Your task to perform on an android device: toggle sleep mode Image 0: 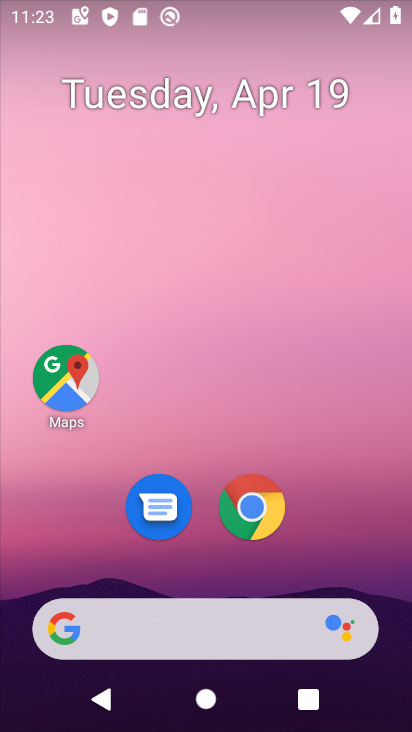
Step 0: drag from (384, 525) to (347, 168)
Your task to perform on an android device: toggle sleep mode Image 1: 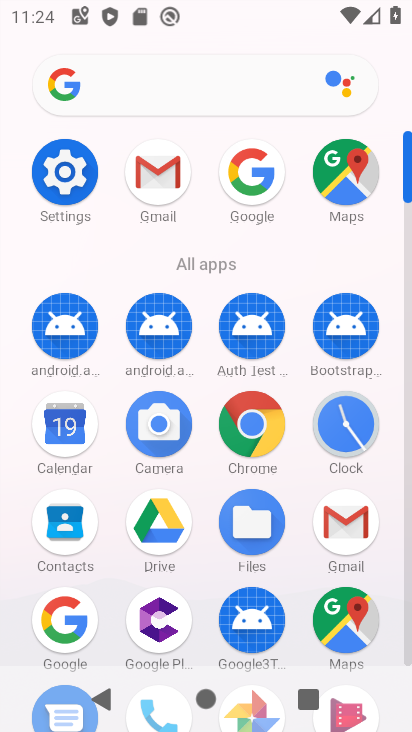
Step 1: click (62, 181)
Your task to perform on an android device: toggle sleep mode Image 2: 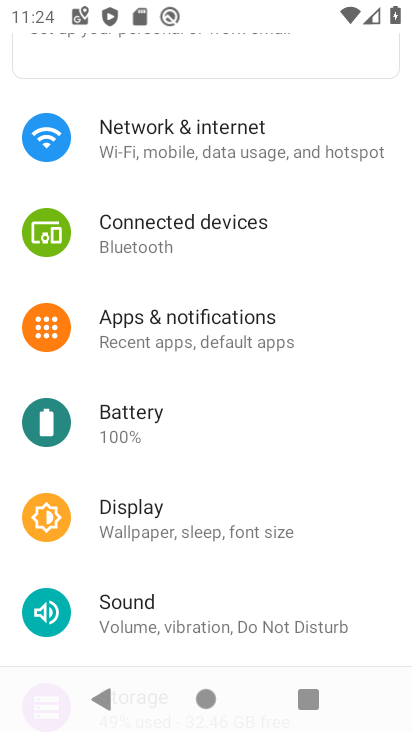
Step 2: drag from (302, 266) to (348, 552)
Your task to perform on an android device: toggle sleep mode Image 3: 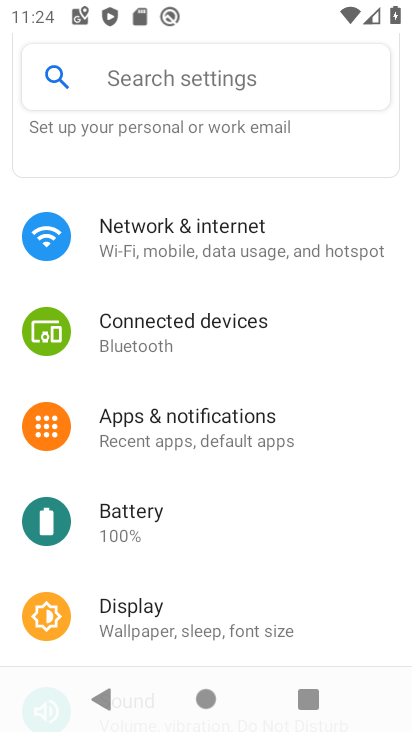
Step 3: click (233, 77)
Your task to perform on an android device: toggle sleep mode Image 4: 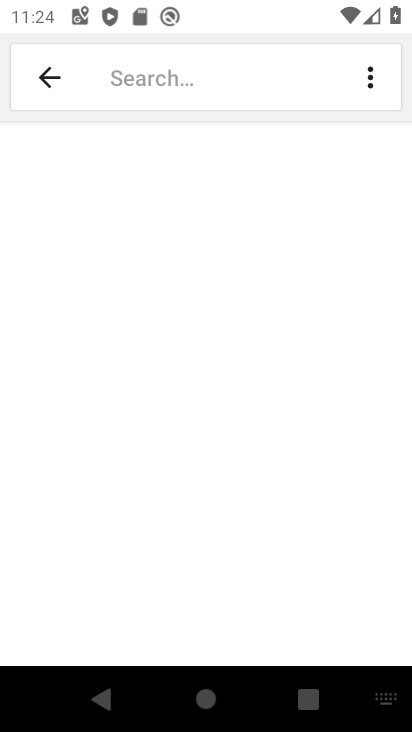
Step 4: type "sleep mode"
Your task to perform on an android device: toggle sleep mode Image 5: 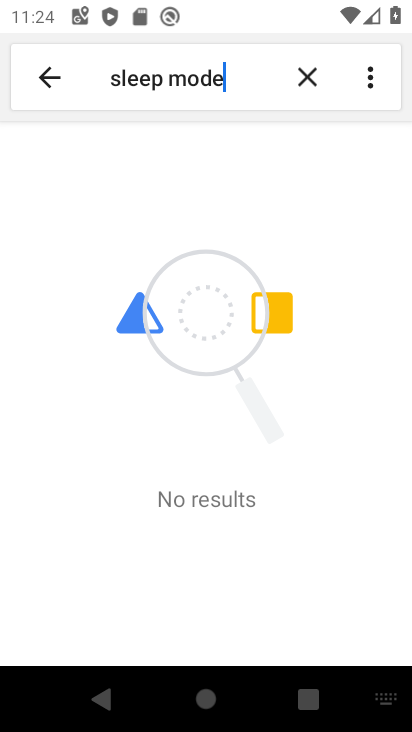
Step 5: task complete